Your task to perform on an android device: snooze an email in the gmail app Image 0: 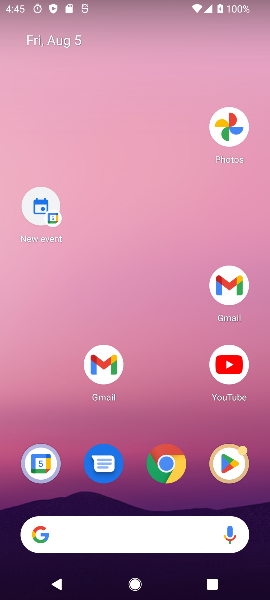
Step 0: drag from (135, 532) to (155, 112)
Your task to perform on an android device: snooze an email in the gmail app Image 1: 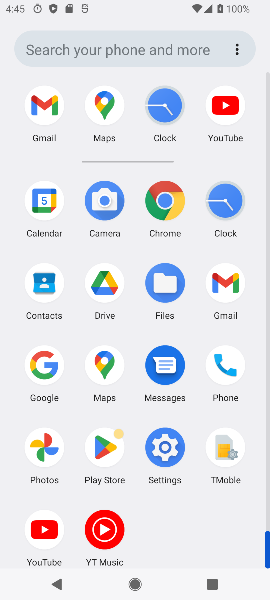
Step 1: click (223, 287)
Your task to perform on an android device: snooze an email in the gmail app Image 2: 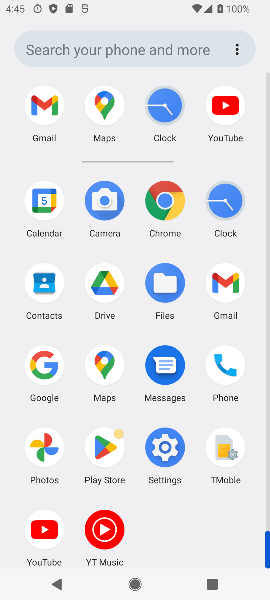
Step 2: click (225, 289)
Your task to perform on an android device: snooze an email in the gmail app Image 3: 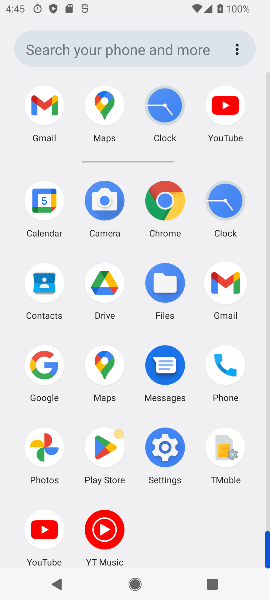
Step 3: click (225, 289)
Your task to perform on an android device: snooze an email in the gmail app Image 4: 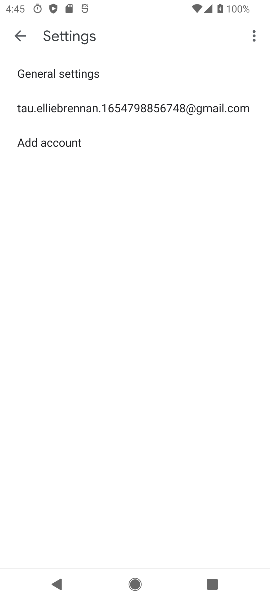
Step 4: click (225, 289)
Your task to perform on an android device: snooze an email in the gmail app Image 5: 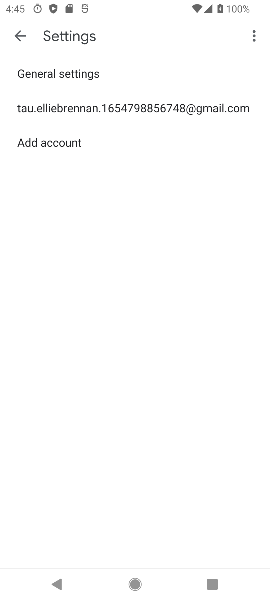
Step 5: click (16, 36)
Your task to perform on an android device: snooze an email in the gmail app Image 6: 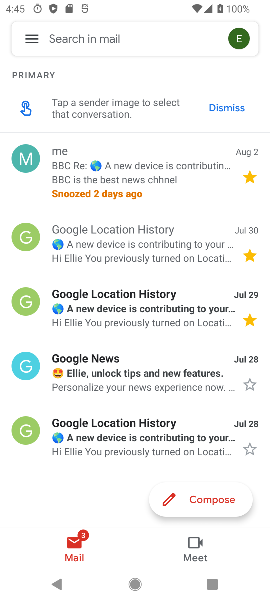
Step 6: click (33, 35)
Your task to perform on an android device: snooze an email in the gmail app Image 7: 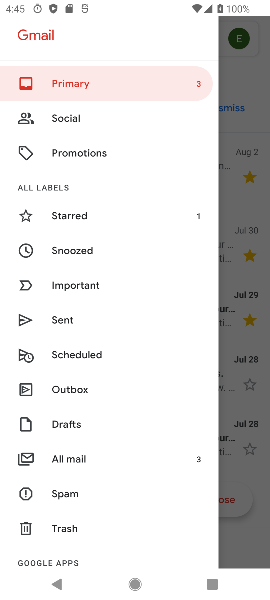
Step 7: click (249, 208)
Your task to perform on an android device: snooze an email in the gmail app Image 8: 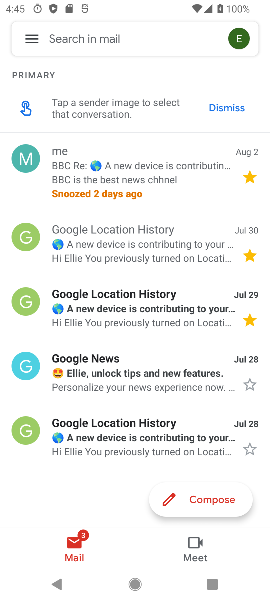
Step 8: click (77, 233)
Your task to perform on an android device: snooze an email in the gmail app Image 9: 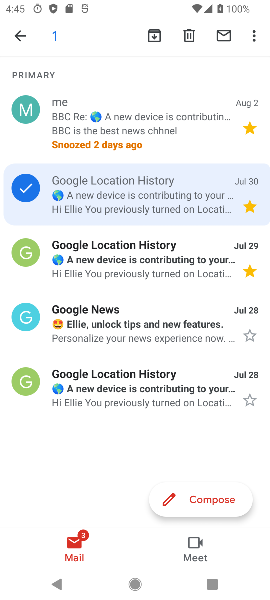
Step 9: click (250, 35)
Your task to perform on an android device: snooze an email in the gmail app Image 10: 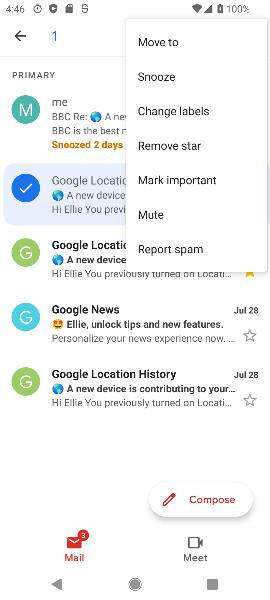
Step 10: click (156, 75)
Your task to perform on an android device: snooze an email in the gmail app Image 11: 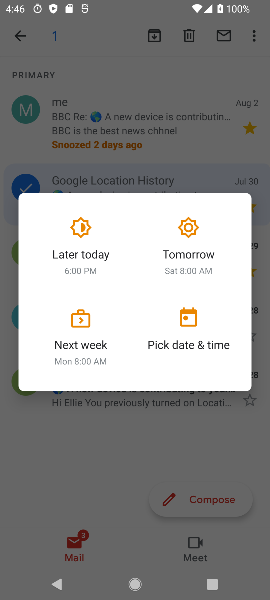
Step 11: click (87, 245)
Your task to perform on an android device: snooze an email in the gmail app Image 12: 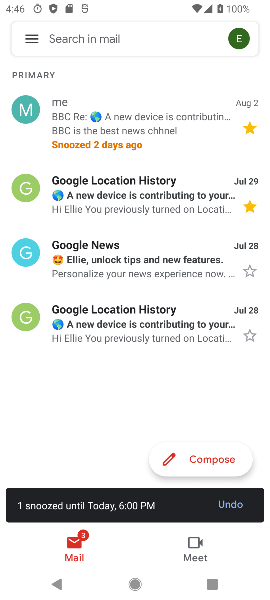
Step 12: task complete